Your task to perform on an android device: check the backup settings in the google photos Image 0: 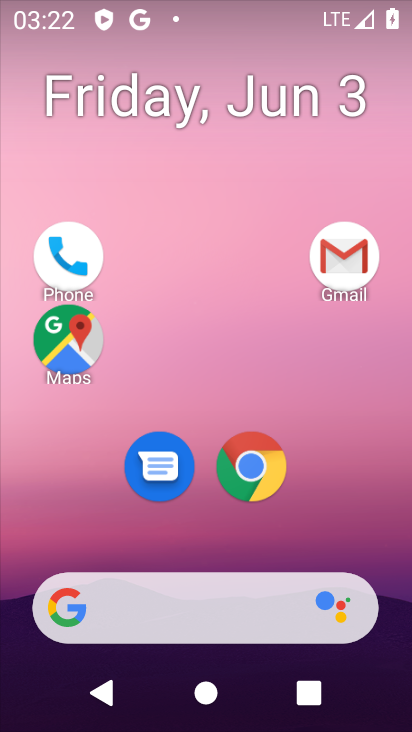
Step 0: drag from (191, 565) to (169, 171)
Your task to perform on an android device: check the backup settings in the google photos Image 1: 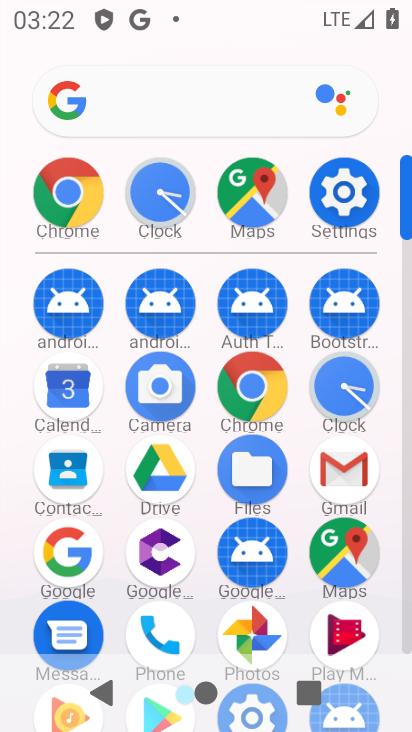
Step 1: click (254, 633)
Your task to perform on an android device: check the backup settings in the google photos Image 2: 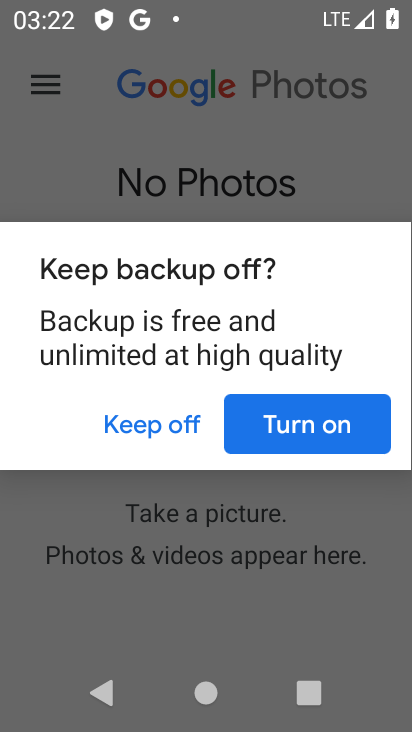
Step 2: click (242, 411)
Your task to perform on an android device: check the backup settings in the google photos Image 3: 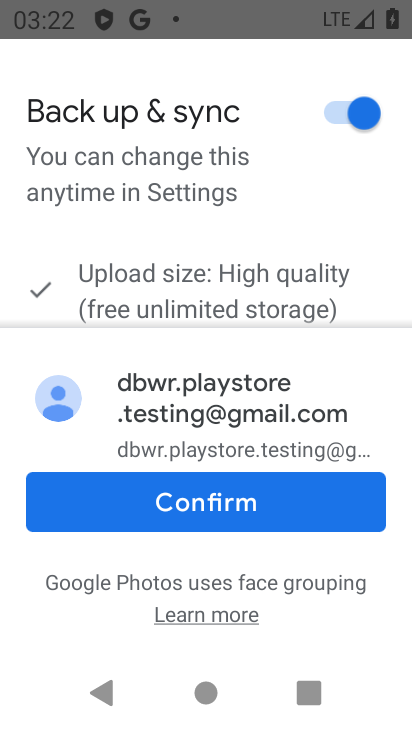
Step 3: click (199, 497)
Your task to perform on an android device: check the backup settings in the google photos Image 4: 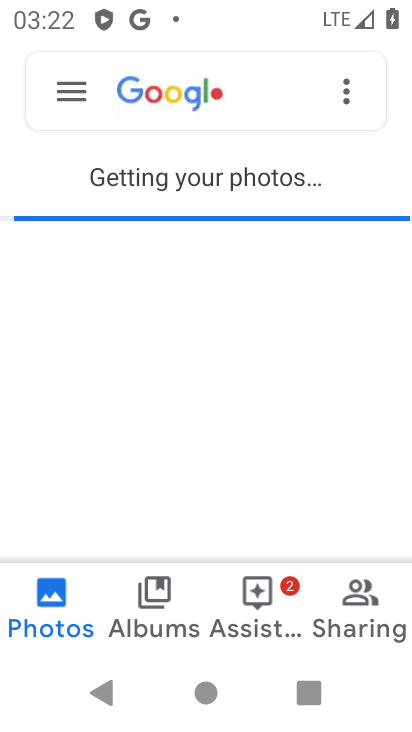
Step 4: click (69, 87)
Your task to perform on an android device: check the backup settings in the google photos Image 5: 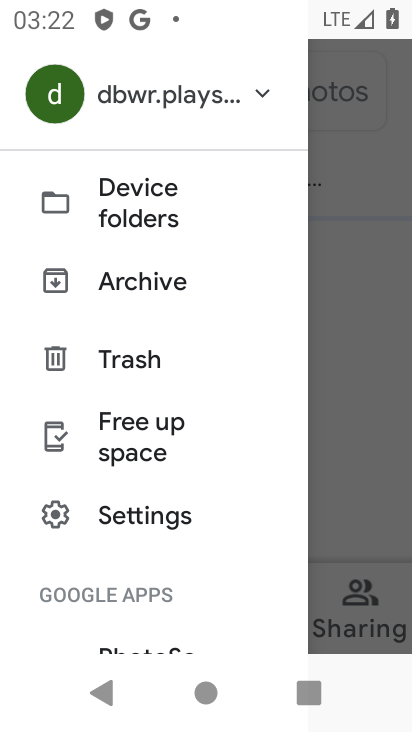
Step 5: drag from (146, 530) to (137, 326)
Your task to perform on an android device: check the backup settings in the google photos Image 6: 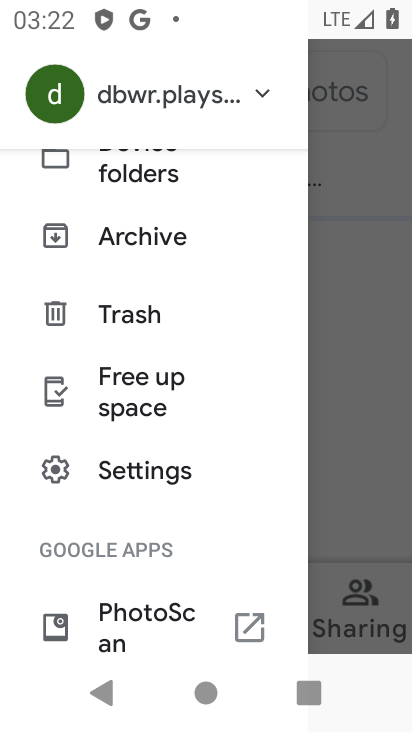
Step 6: click (143, 482)
Your task to perform on an android device: check the backup settings in the google photos Image 7: 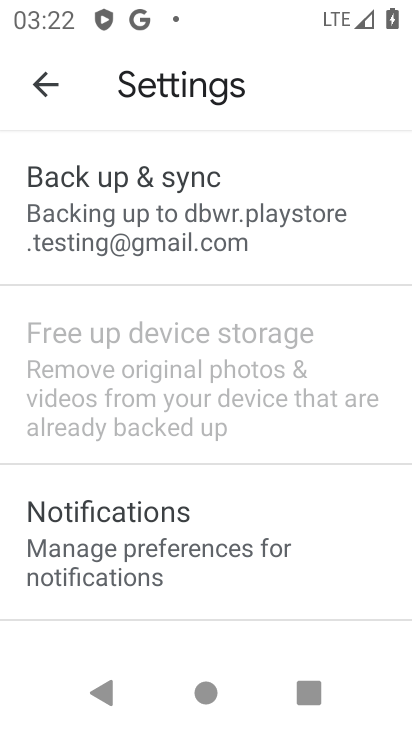
Step 7: drag from (194, 603) to (179, 401)
Your task to perform on an android device: check the backup settings in the google photos Image 8: 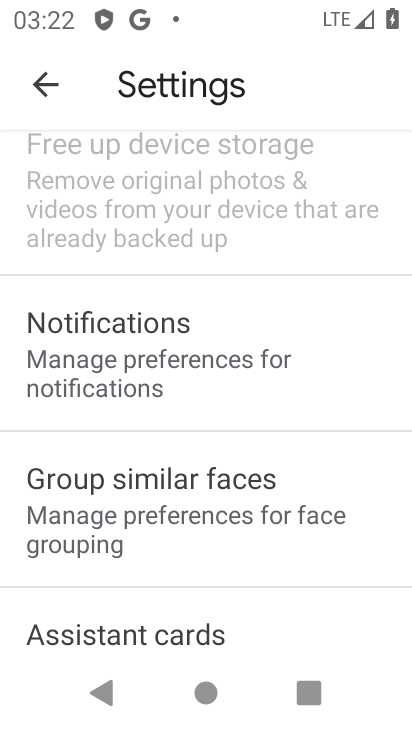
Step 8: drag from (216, 265) to (218, 532)
Your task to perform on an android device: check the backup settings in the google photos Image 9: 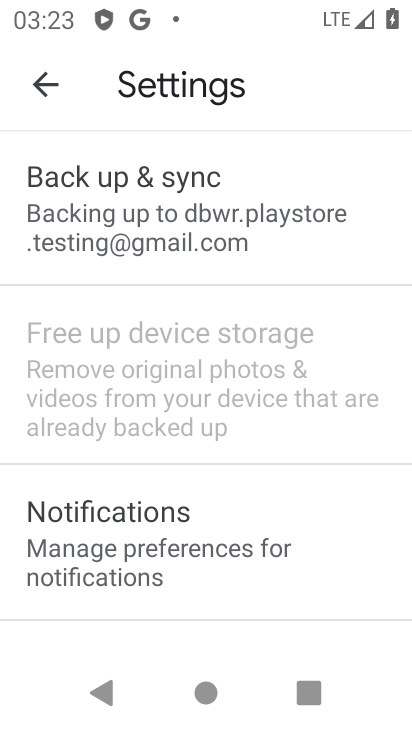
Step 9: click (192, 212)
Your task to perform on an android device: check the backup settings in the google photos Image 10: 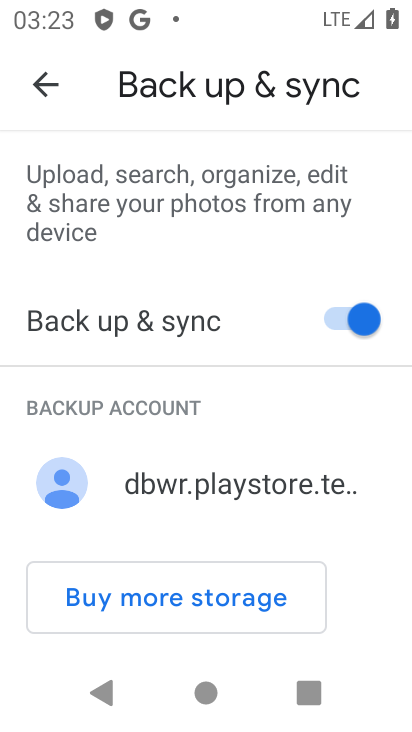
Step 10: task complete